Your task to perform on an android device: clear all cookies in the chrome app Image 0: 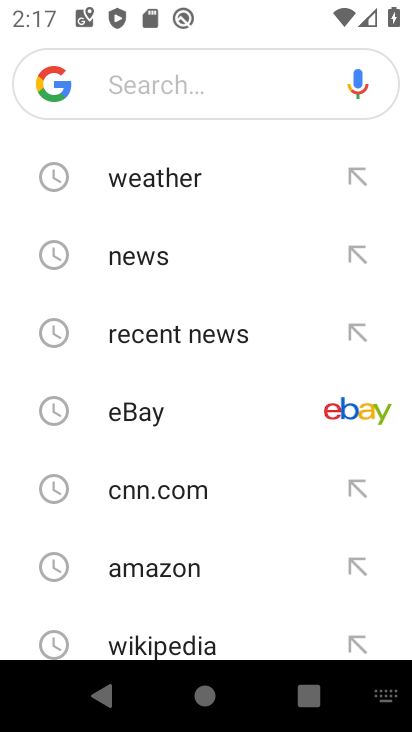
Step 0: press home button
Your task to perform on an android device: clear all cookies in the chrome app Image 1: 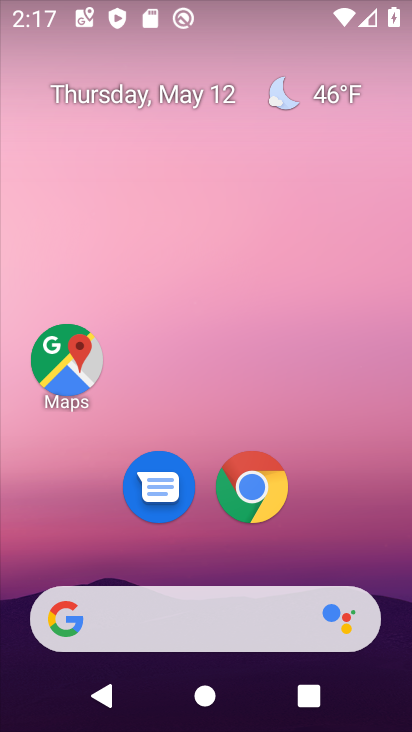
Step 1: click (254, 482)
Your task to perform on an android device: clear all cookies in the chrome app Image 2: 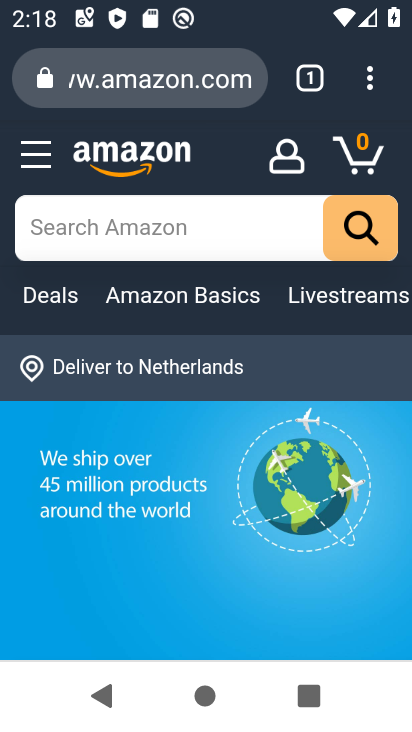
Step 2: click (358, 85)
Your task to perform on an android device: clear all cookies in the chrome app Image 3: 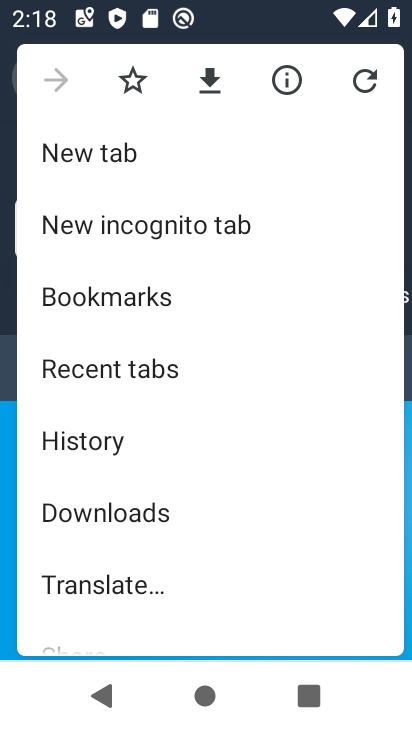
Step 3: click (183, 430)
Your task to perform on an android device: clear all cookies in the chrome app Image 4: 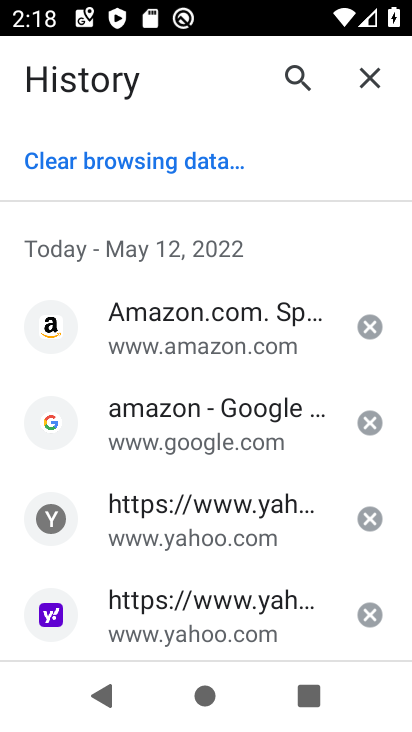
Step 4: click (110, 137)
Your task to perform on an android device: clear all cookies in the chrome app Image 5: 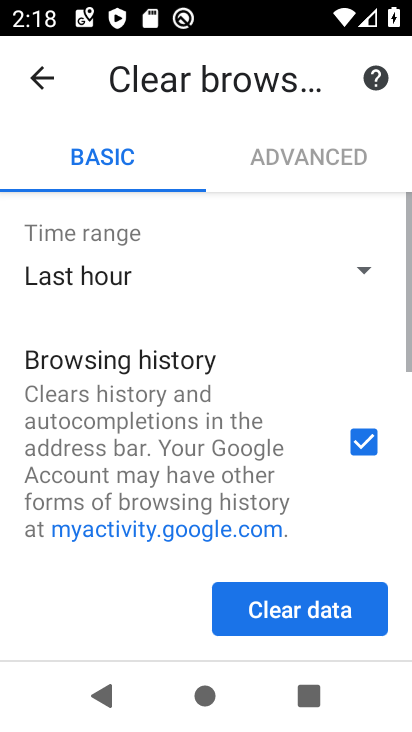
Step 5: click (303, 446)
Your task to perform on an android device: clear all cookies in the chrome app Image 6: 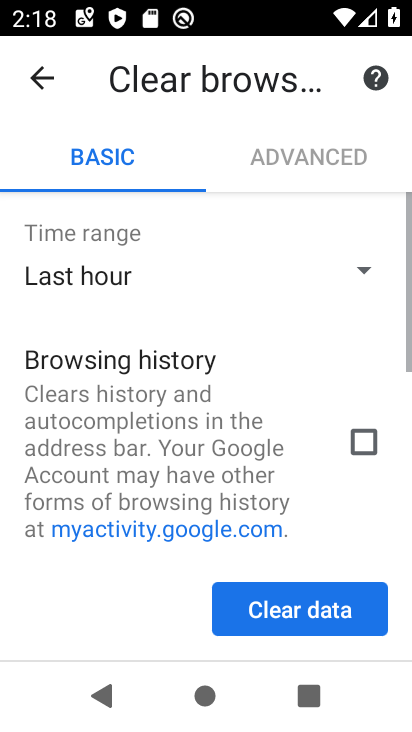
Step 6: drag from (166, 420) to (237, 28)
Your task to perform on an android device: clear all cookies in the chrome app Image 7: 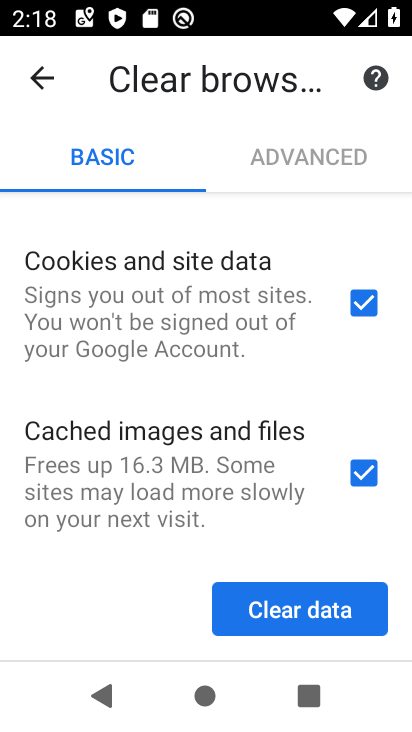
Step 7: click (352, 491)
Your task to perform on an android device: clear all cookies in the chrome app Image 8: 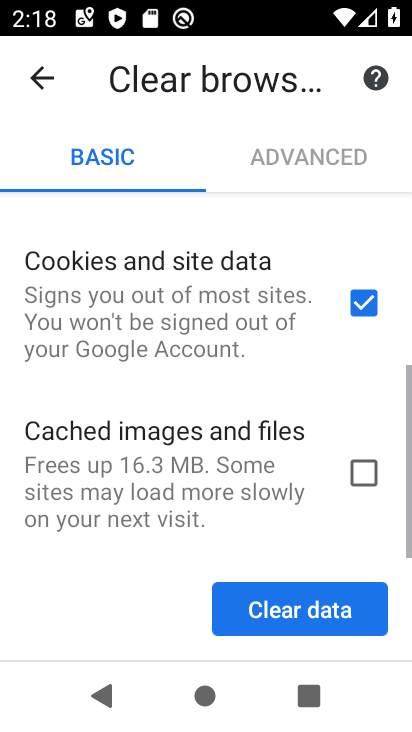
Step 8: click (273, 607)
Your task to perform on an android device: clear all cookies in the chrome app Image 9: 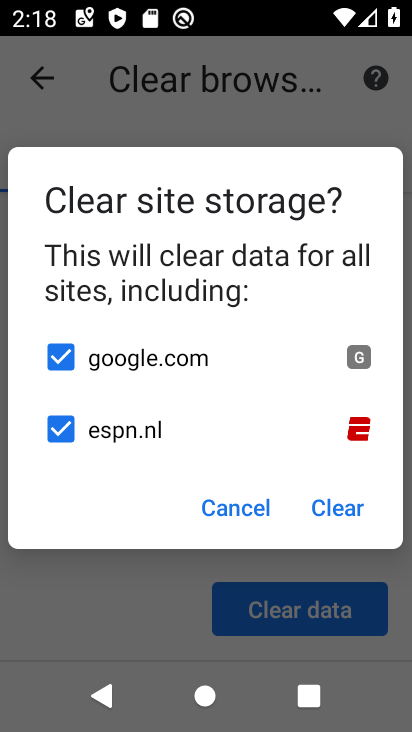
Step 9: click (331, 517)
Your task to perform on an android device: clear all cookies in the chrome app Image 10: 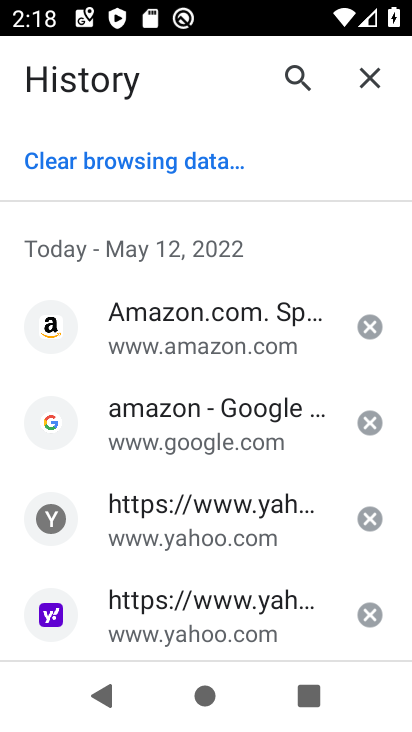
Step 10: task complete